Your task to perform on an android device: all mails in gmail Image 0: 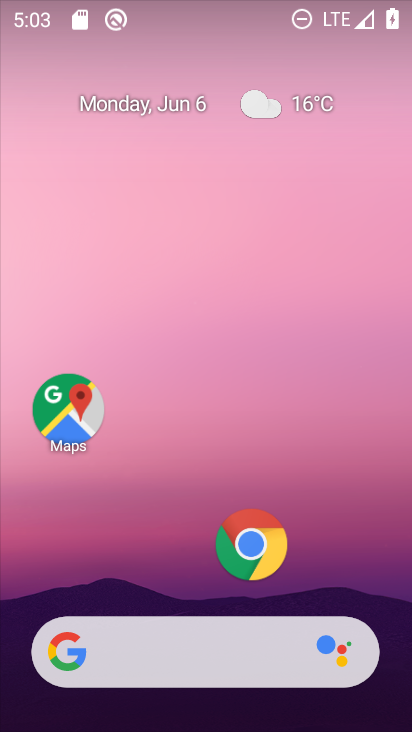
Step 0: drag from (203, 595) to (225, 87)
Your task to perform on an android device: all mails in gmail Image 1: 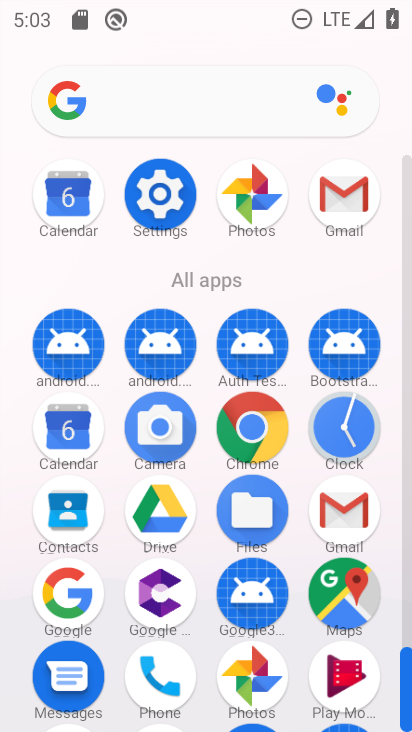
Step 1: click (344, 182)
Your task to perform on an android device: all mails in gmail Image 2: 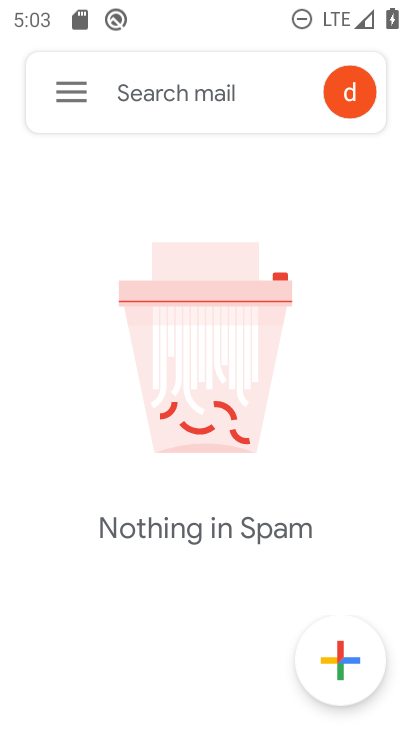
Step 2: click (71, 88)
Your task to perform on an android device: all mails in gmail Image 3: 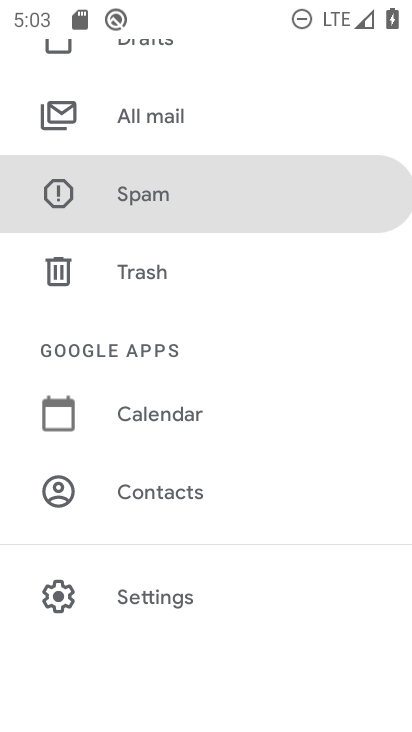
Step 3: click (153, 124)
Your task to perform on an android device: all mails in gmail Image 4: 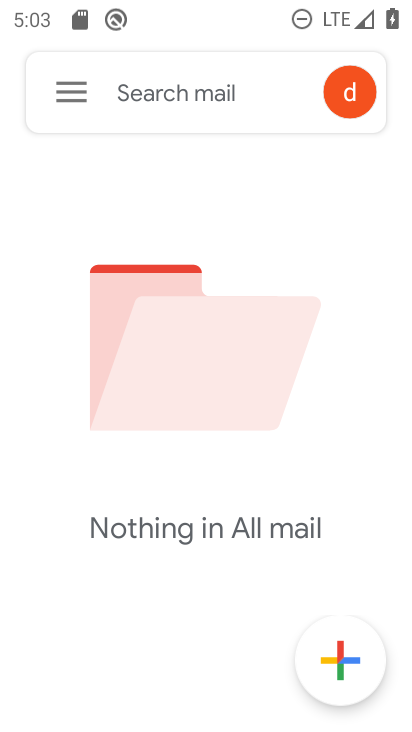
Step 4: task complete